Your task to perform on an android device: What is the news today? Image 0: 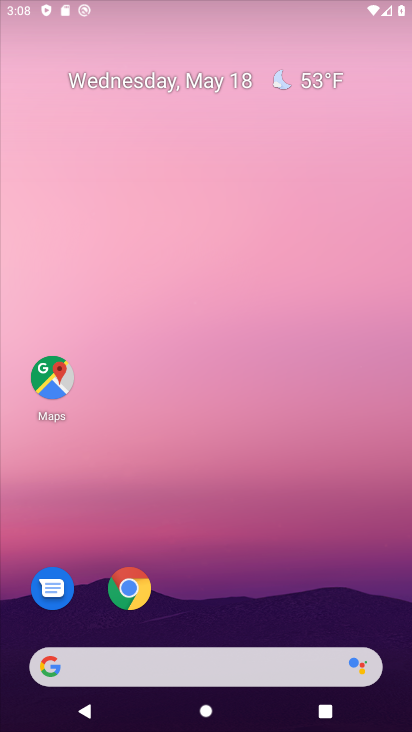
Step 0: press home button
Your task to perform on an android device: What is the news today? Image 1: 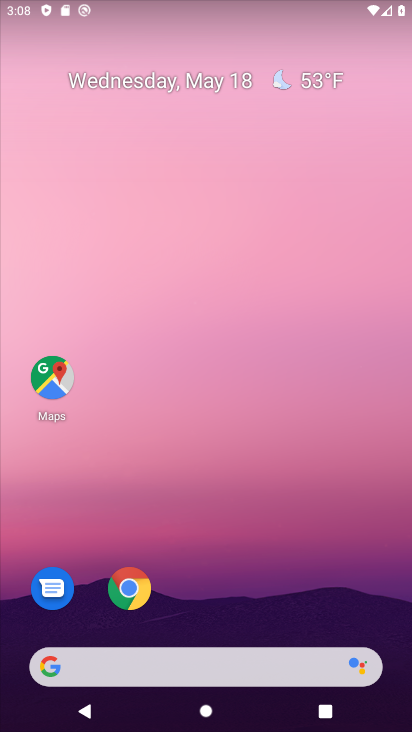
Step 1: click (140, 584)
Your task to perform on an android device: What is the news today? Image 2: 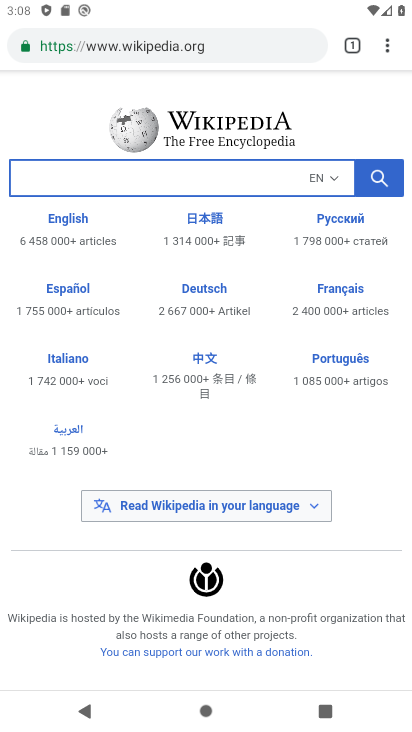
Step 2: click (158, 40)
Your task to perform on an android device: What is the news today? Image 3: 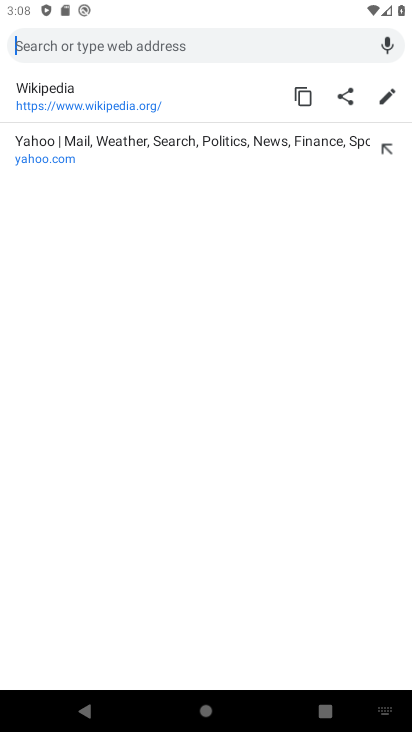
Step 3: type "What is the news today?"
Your task to perform on an android device: What is the news today? Image 4: 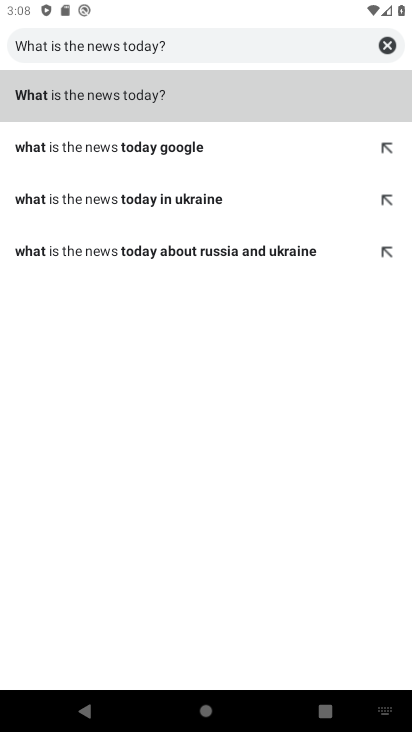
Step 4: click (100, 79)
Your task to perform on an android device: What is the news today? Image 5: 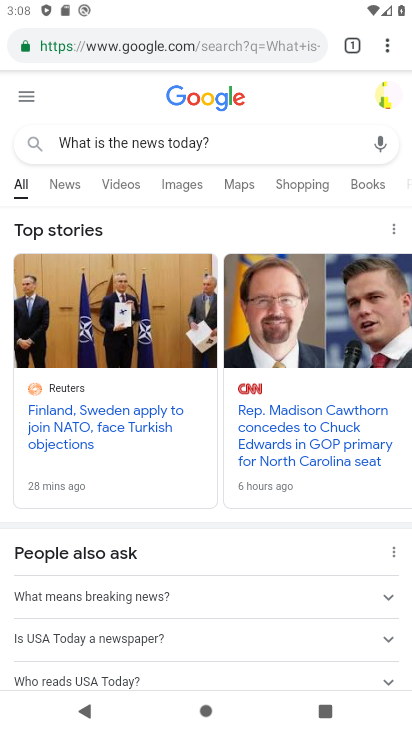
Step 5: task complete